Your task to perform on an android device: Open calendar and show me the first week of next month Image 0: 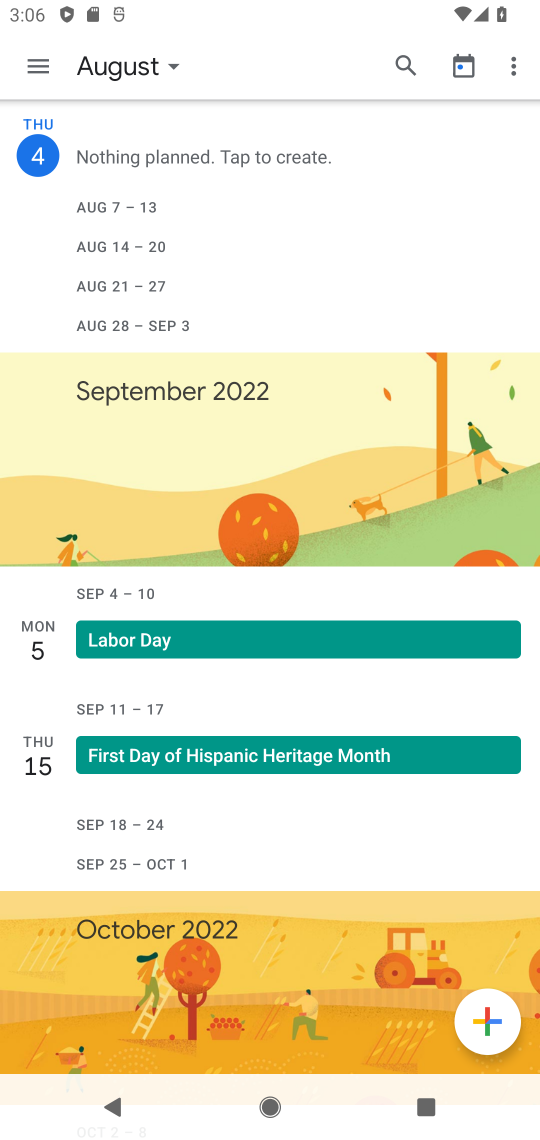
Step 0: press home button
Your task to perform on an android device: Open calendar and show me the first week of next month Image 1: 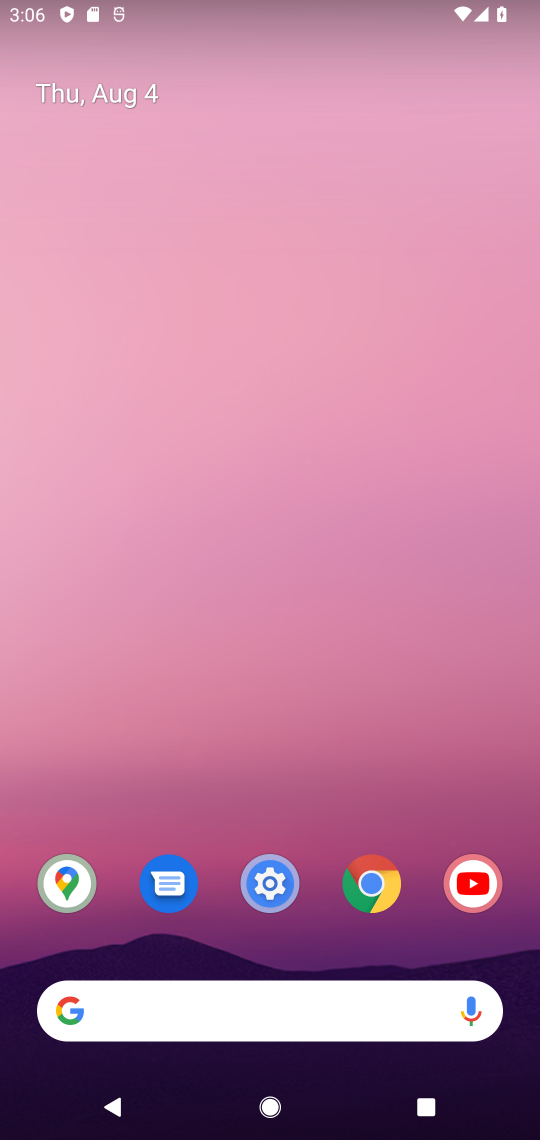
Step 1: drag from (435, 782) to (338, 11)
Your task to perform on an android device: Open calendar and show me the first week of next month Image 2: 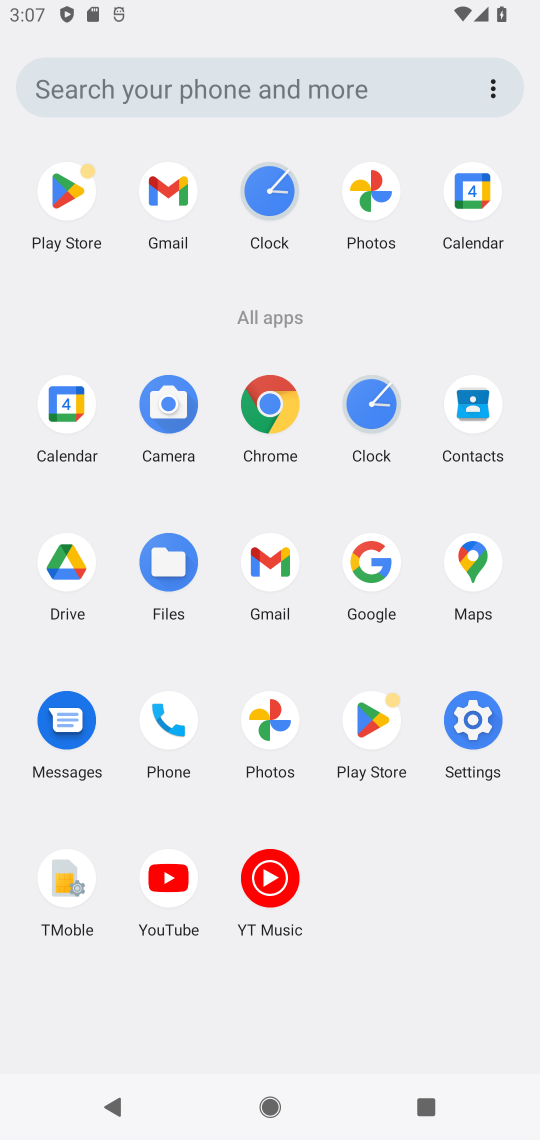
Step 2: click (69, 426)
Your task to perform on an android device: Open calendar and show me the first week of next month Image 3: 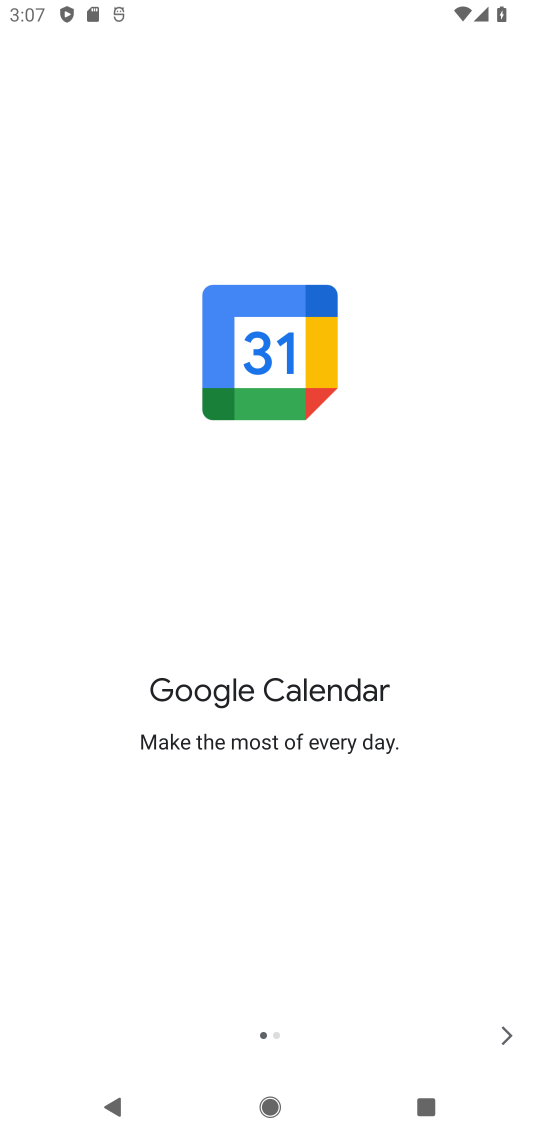
Step 3: click (515, 1034)
Your task to perform on an android device: Open calendar and show me the first week of next month Image 4: 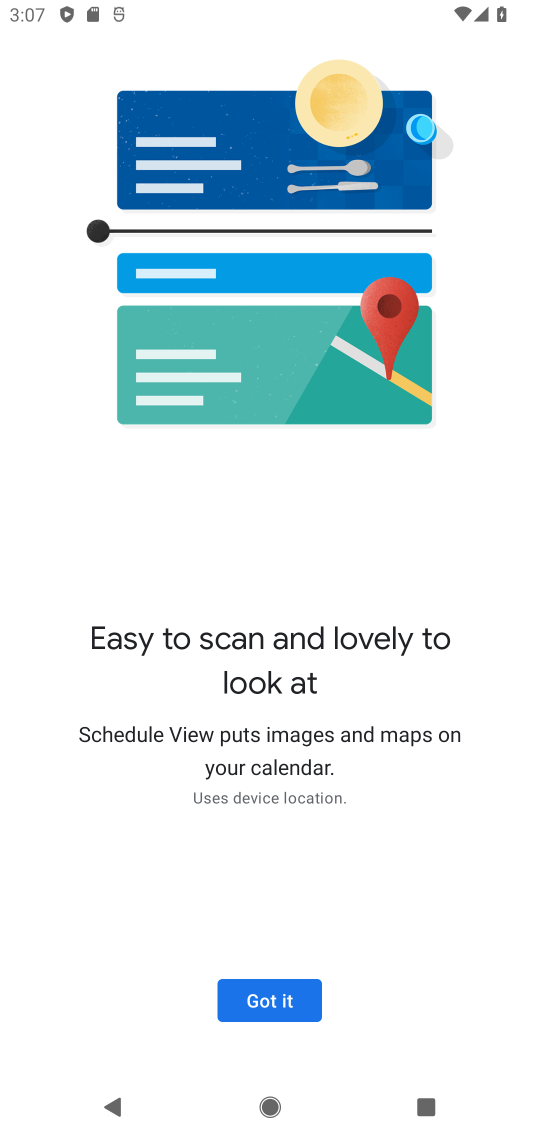
Step 4: click (515, 1034)
Your task to perform on an android device: Open calendar and show me the first week of next month Image 5: 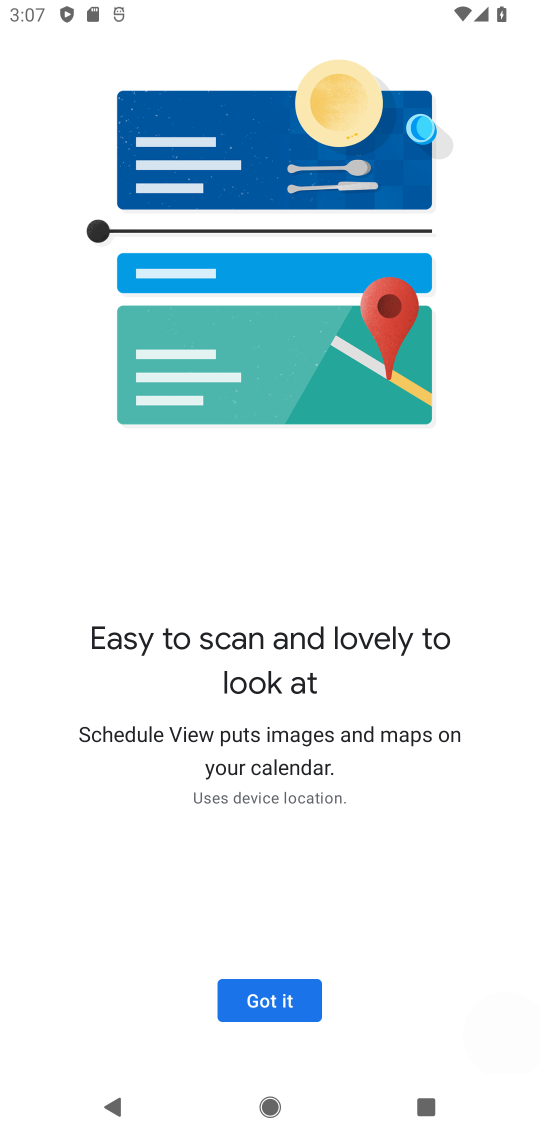
Step 5: click (288, 993)
Your task to perform on an android device: Open calendar and show me the first week of next month Image 6: 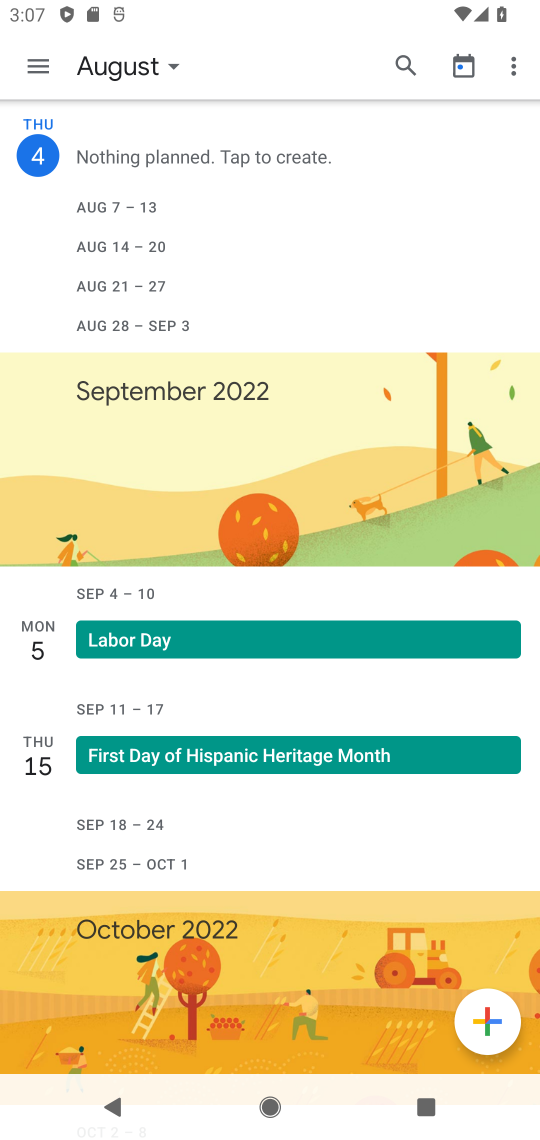
Step 6: click (146, 72)
Your task to perform on an android device: Open calendar and show me the first week of next month Image 7: 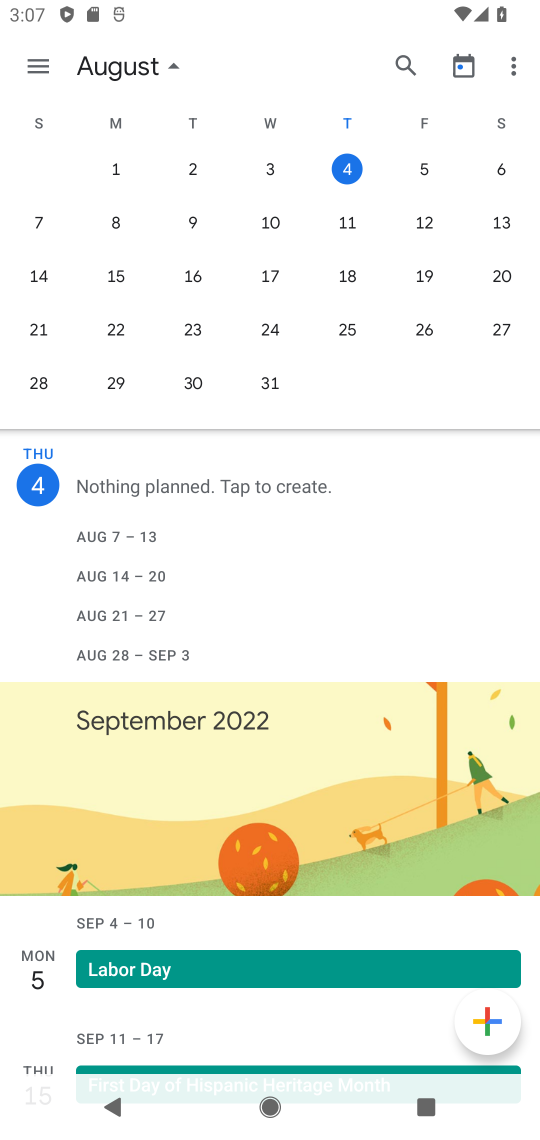
Step 7: drag from (511, 228) to (2, 242)
Your task to perform on an android device: Open calendar and show me the first week of next month Image 8: 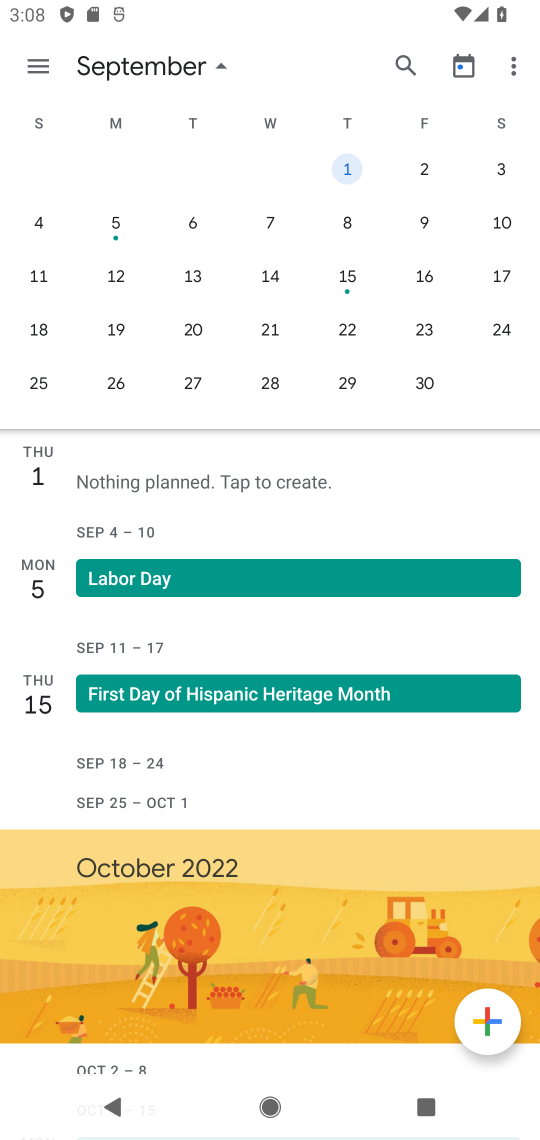
Step 8: click (31, 220)
Your task to perform on an android device: Open calendar and show me the first week of next month Image 9: 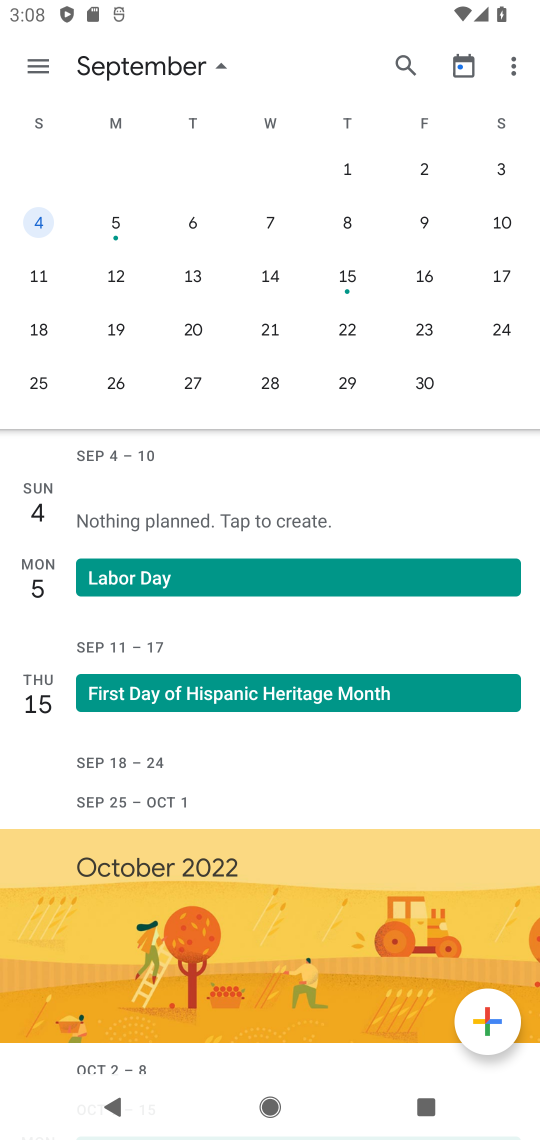
Step 9: click (35, 224)
Your task to perform on an android device: Open calendar and show me the first week of next month Image 10: 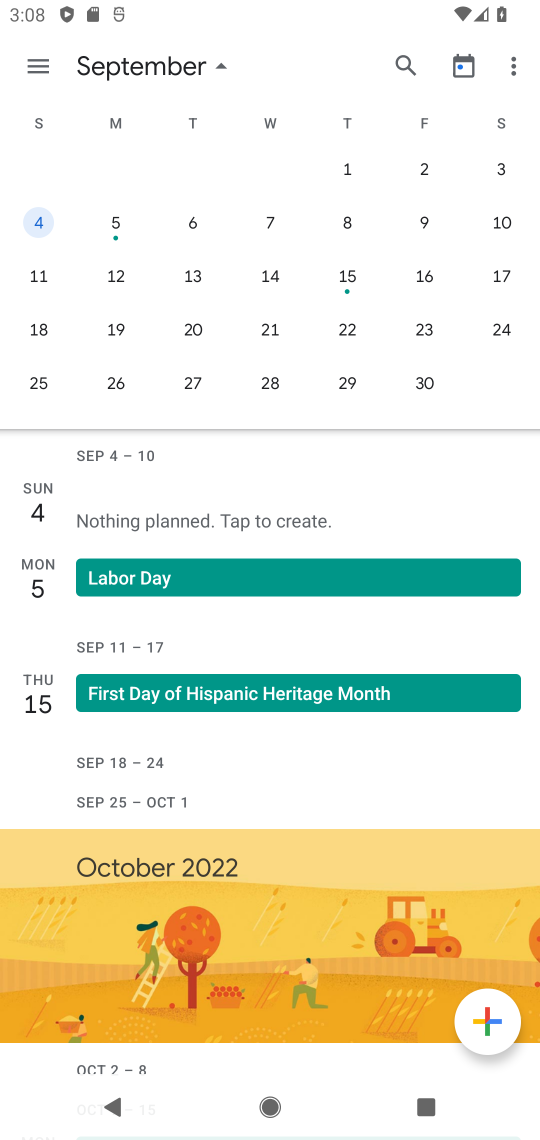
Step 10: task complete